Your task to perform on an android device: Go to Google Image 0: 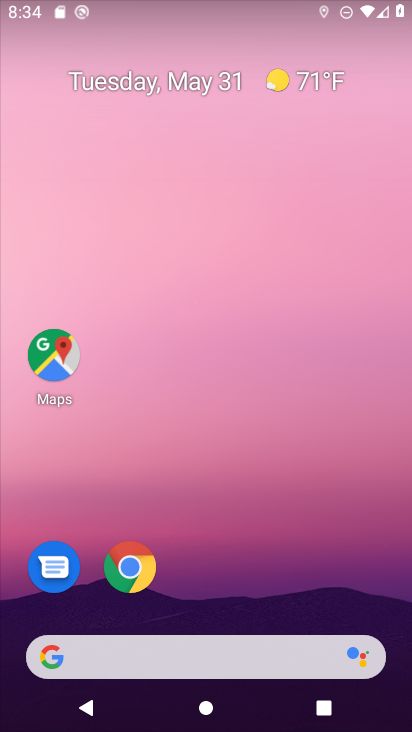
Step 0: drag from (144, 442) to (152, 181)
Your task to perform on an android device: Go to Google Image 1: 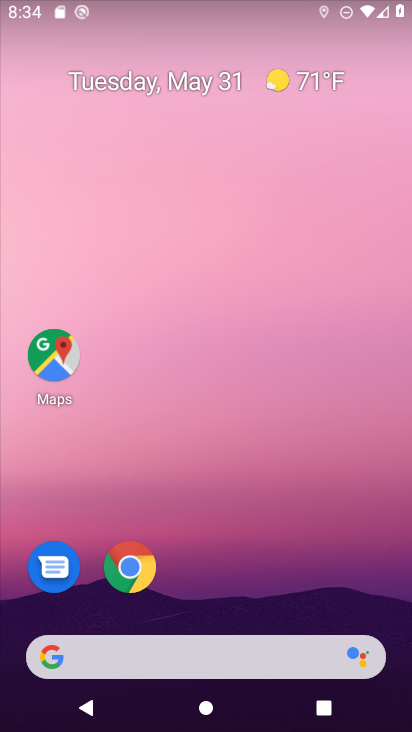
Step 1: drag from (236, 635) to (236, 142)
Your task to perform on an android device: Go to Google Image 2: 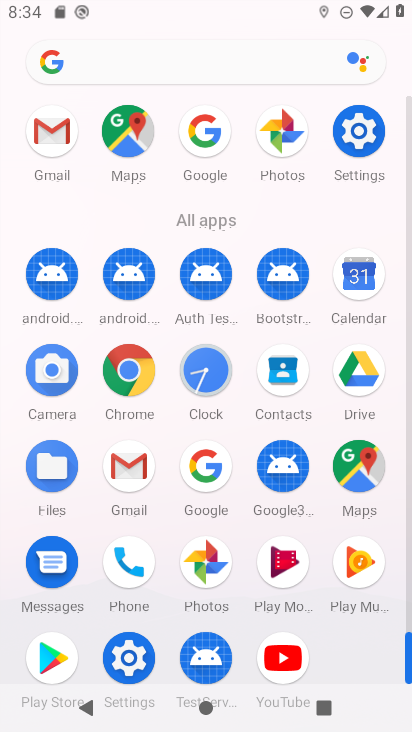
Step 2: click (211, 458)
Your task to perform on an android device: Go to Google Image 3: 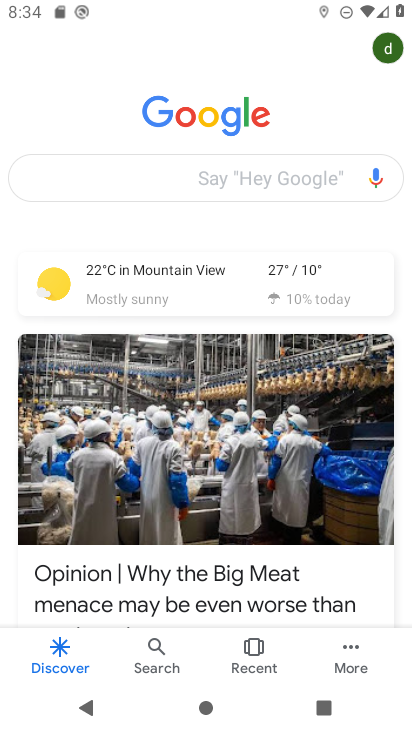
Step 3: task complete